Your task to perform on an android device: turn on notifications settings in the gmail app Image 0: 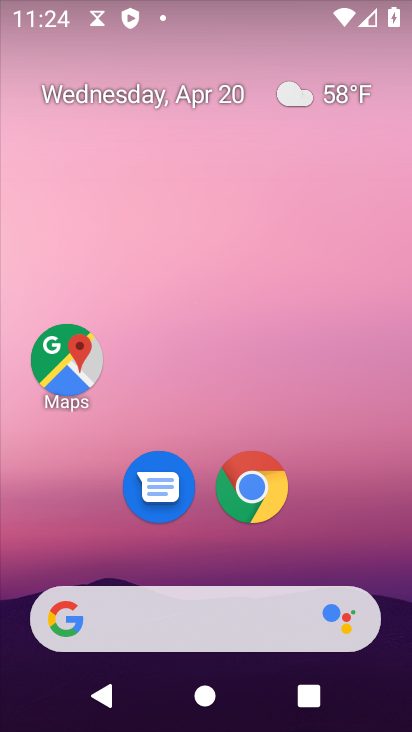
Step 0: drag from (325, 479) to (238, 55)
Your task to perform on an android device: turn on notifications settings in the gmail app Image 1: 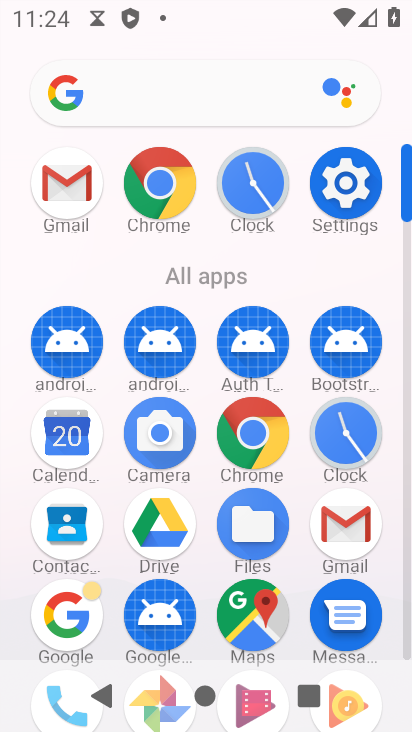
Step 1: drag from (7, 566) to (2, 264)
Your task to perform on an android device: turn on notifications settings in the gmail app Image 2: 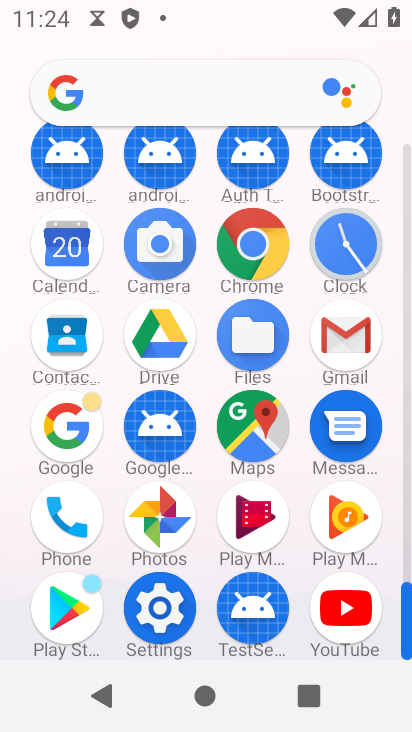
Step 2: click (345, 334)
Your task to perform on an android device: turn on notifications settings in the gmail app Image 3: 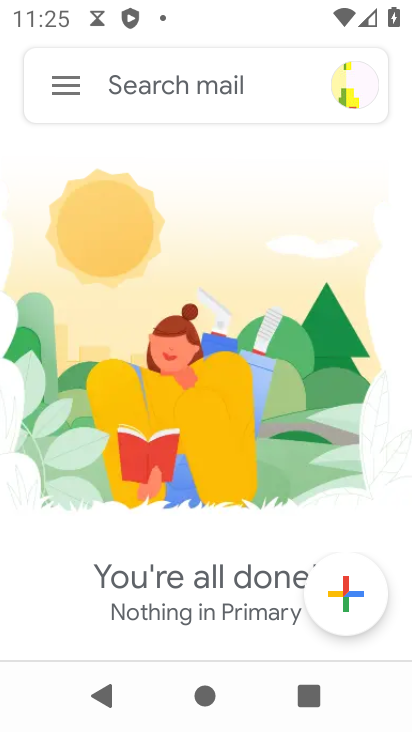
Step 3: click (59, 90)
Your task to perform on an android device: turn on notifications settings in the gmail app Image 4: 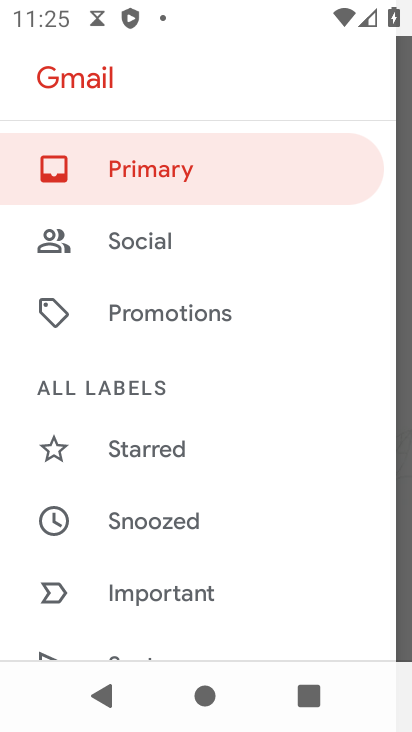
Step 4: drag from (262, 520) to (260, 160)
Your task to perform on an android device: turn on notifications settings in the gmail app Image 5: 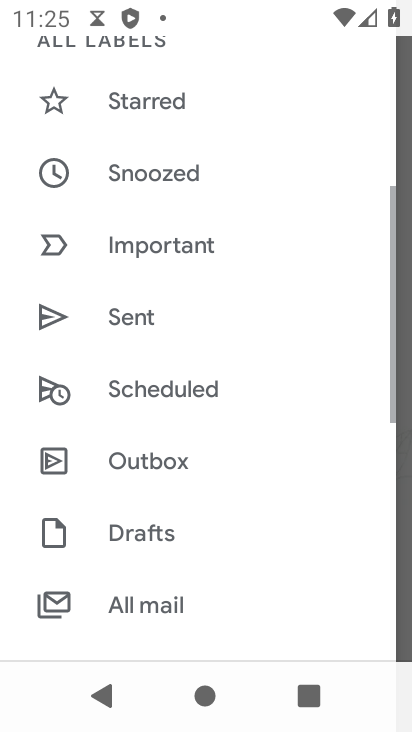
Step 5: drag from (229, 537) to (232, 101)
Your task to perform on an android device: turn on notifications settings in the gmail app Image 6: 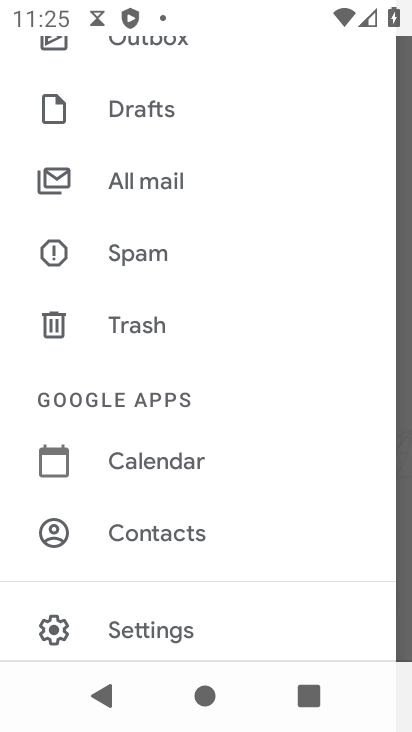
Step 6: drag from (291, 468) to (271, 111)
Your task to perform on an android device: turn on notifications settings in the gmail app Image 7: 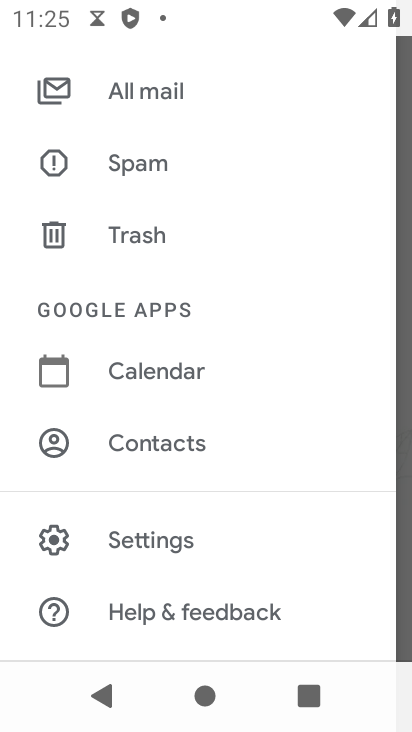
Step 7: drag from (254, 476) to (247, 135)
Your task to perform on an android device: turn on notifications settings in the gmail app Image 8: 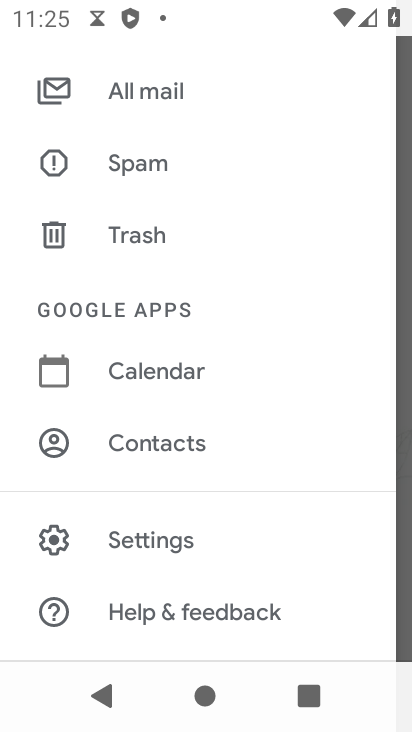
Step 8: click (168, 525)
Your task to perform on an android device: turn on notifications settings in the gmail app Image 9: 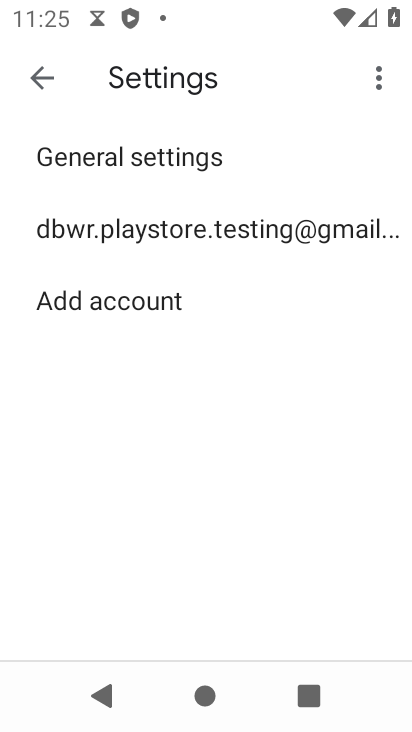
Step 9: click (140, 240)
Your task to perform on an android device: turn on notifications settings in the gmail app Image 10: 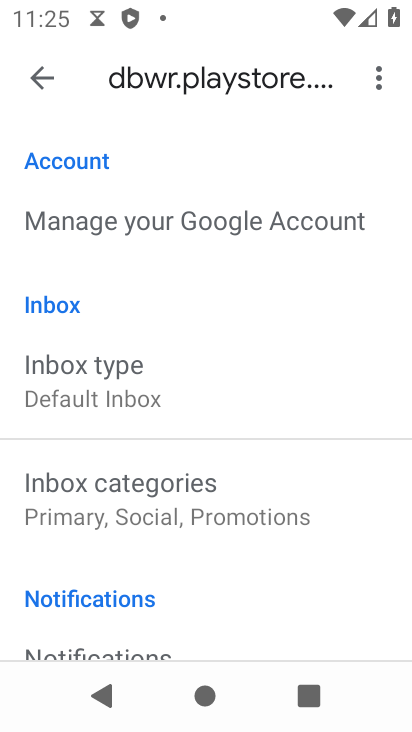
Step 10: drag from (264, 528) to (262, 173)
Your task to perform on an android device: turn on notifications settings in the gmail app Image 11: 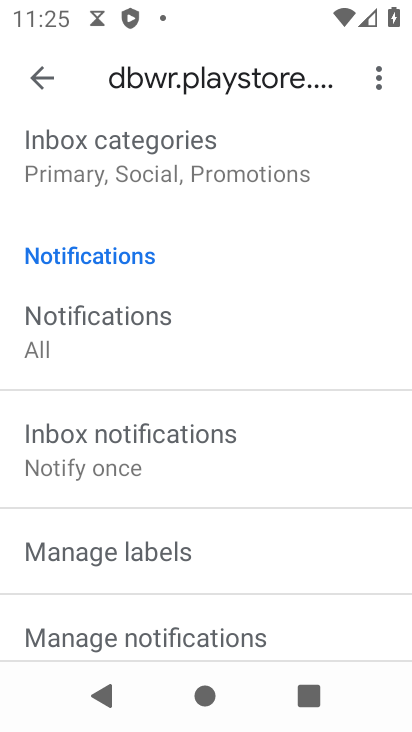
Step 11: drag from (282, 448) to (278, 210)
Your task to perform on an android device: turn on notifications settings in the gmail app Image 12: 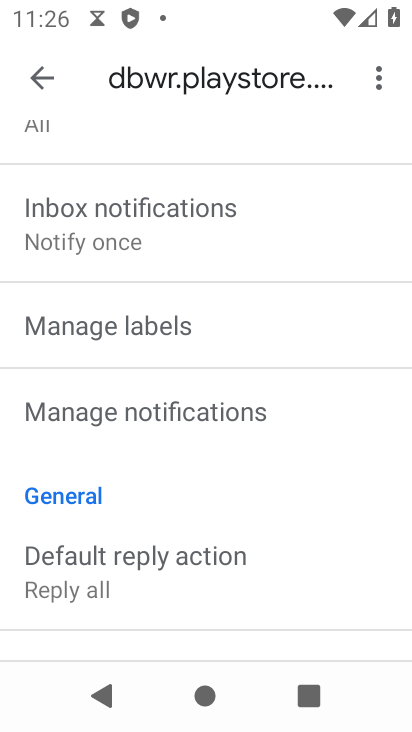
Step 12: click (196, 412)
Your task to perform on an android device: turn on notifications settings in the gmail app Image 13: 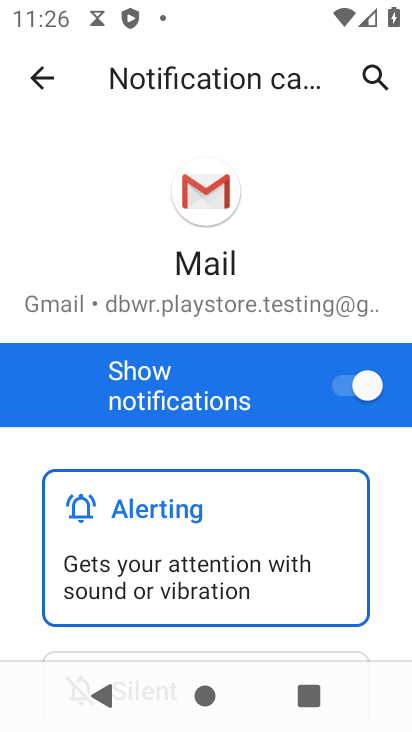
Step 13: task complete